Your task to perform on an android device: visit the assistant section in the google photos Image 0: 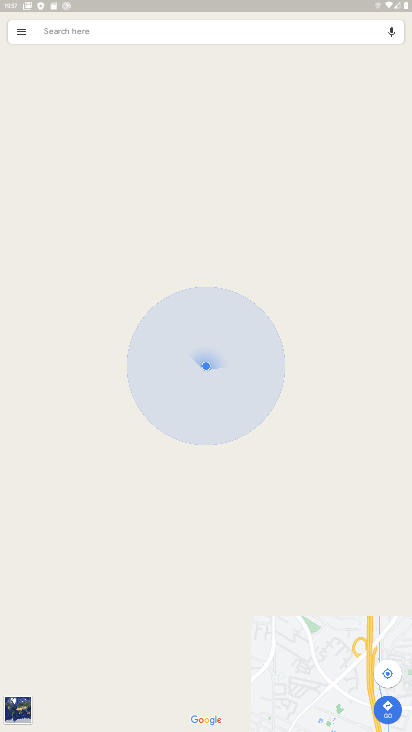
Step 0: press back button
Your task to perform on an android device: visit the assistant section in the google photos Image 1: 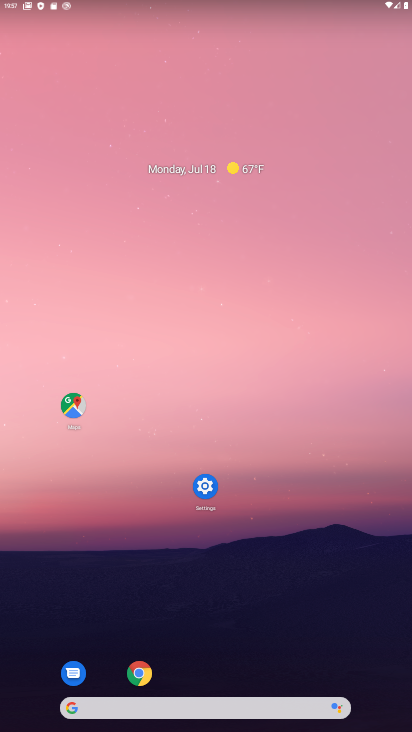
Step 1: press home button
Your task to perform on an android device: visit the assistant section in the google photos Image 2: 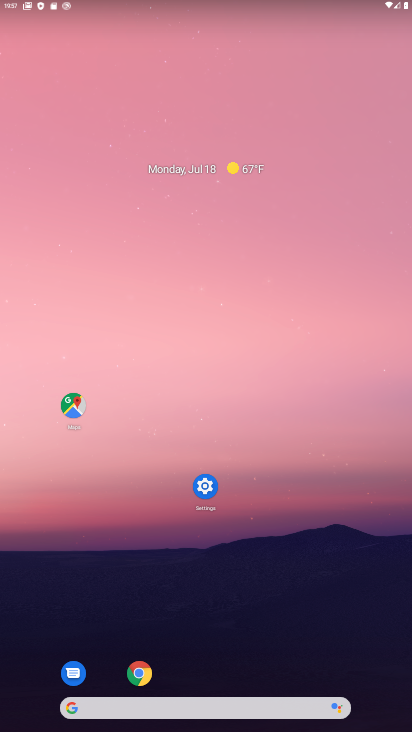
Step 2: drag from (247, 521) to (247, 162)
Your task to perform on an android device: visit the assistant section in the google photos Image 3: 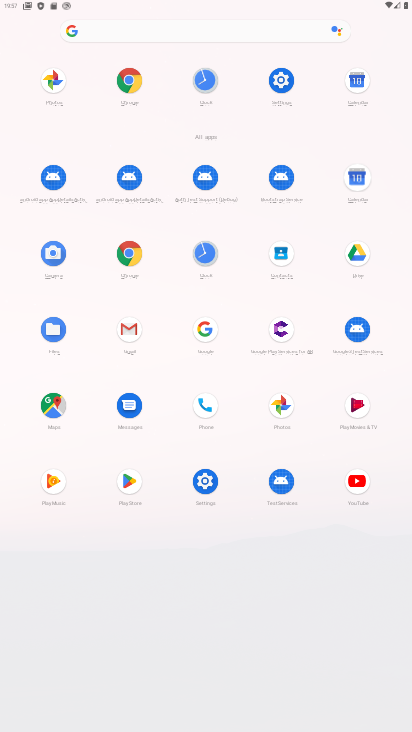
Step 3: click (277, 403)
Your task to perform on an android device: visit the assistant section in the google photos Image 4: 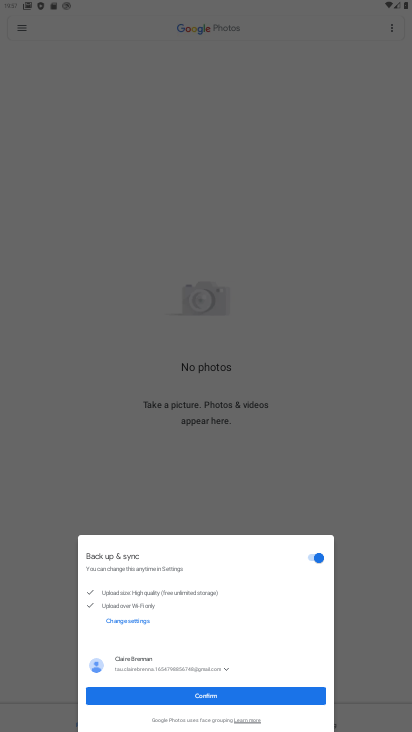
Step 4: click (213, 693)
Your task to perform on an android device: visit the assistant section in the google photos Image 5: 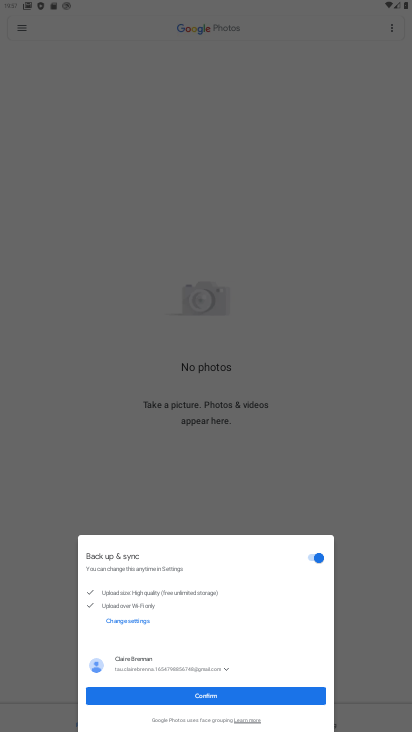
Step 5: click (213, 693)
Your task to perform on an android device: visit the assistant section in the google photos Image 6: 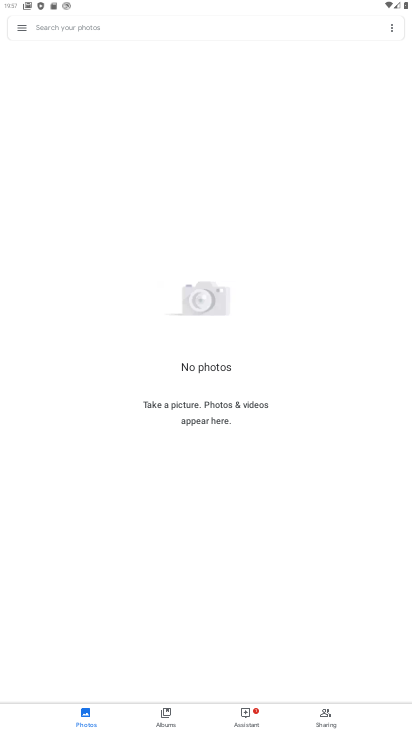
Step 6: click (239, 713)
Your task to perform on an android device: visit the assistant section in the google photos Image 7: 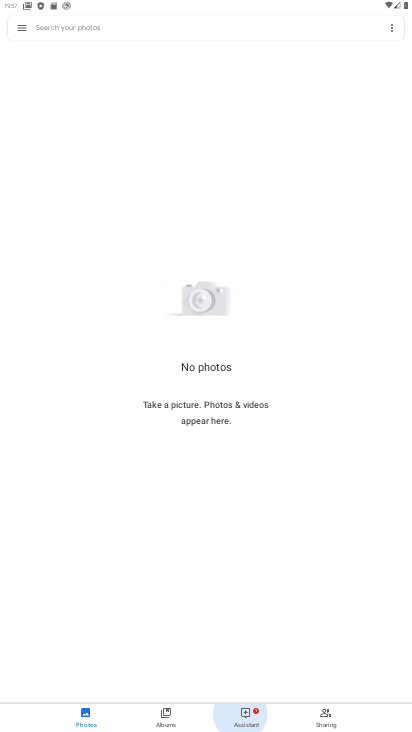
Step 7: click (239, 714)
Your task to perform on an android device: visit the assistant section in the google photos Image 8: 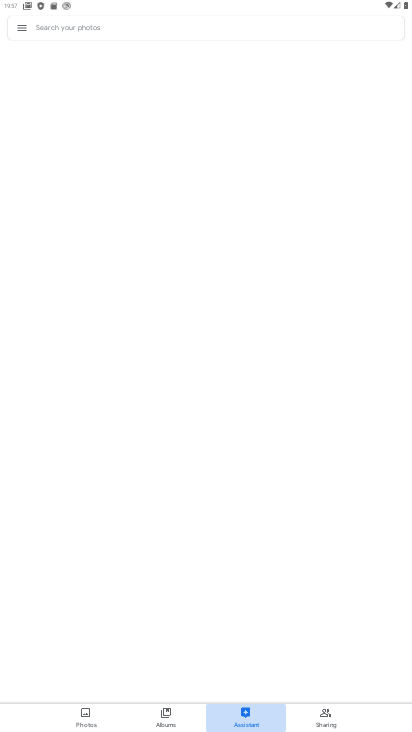
Step 8: click (240, 717)
Your task to perform on an android device: visit the assistant section in the google photos Image 9: 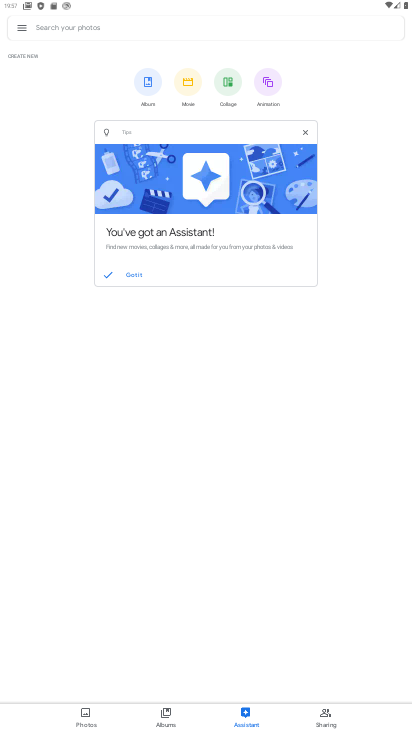
Step 9: task complete